Your task to perform on an android device: uninstall "ColorNote Notepad Notes" Image 0: 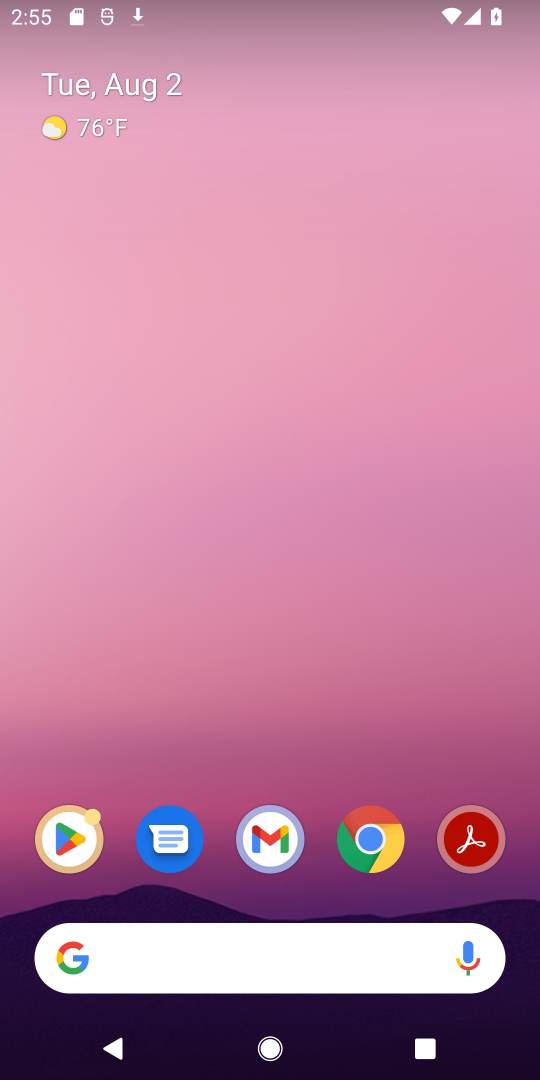
Step 0: drag from (222, 890) to (184, 124)
Your task to perform on an android device: uninstall "ColorNote Notepad Notes" Image 1: 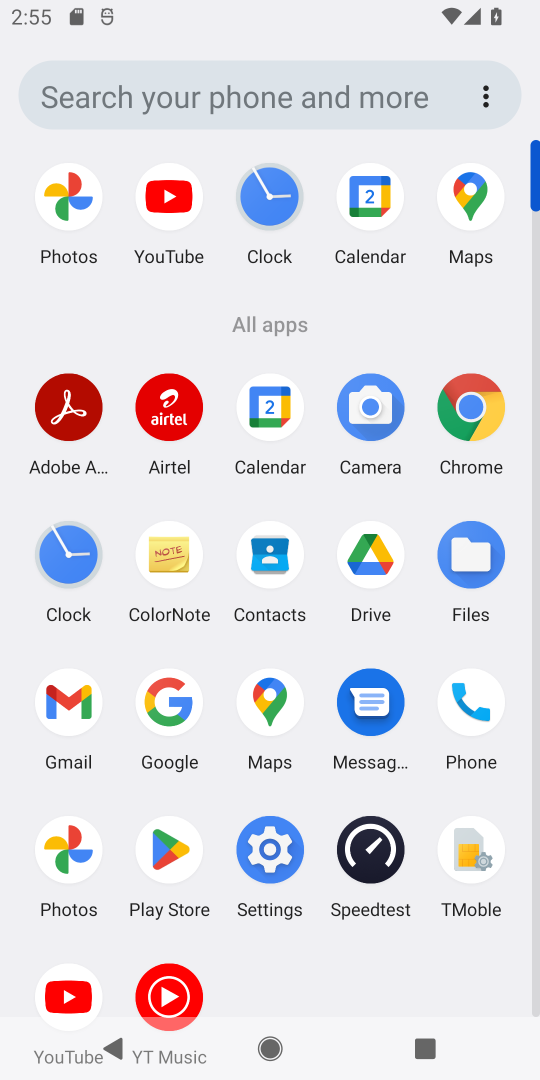
Step 1: click (187, 575)
Your task to perform on an android device: uninstall "ColorNote Notepad Notes" Image 2: 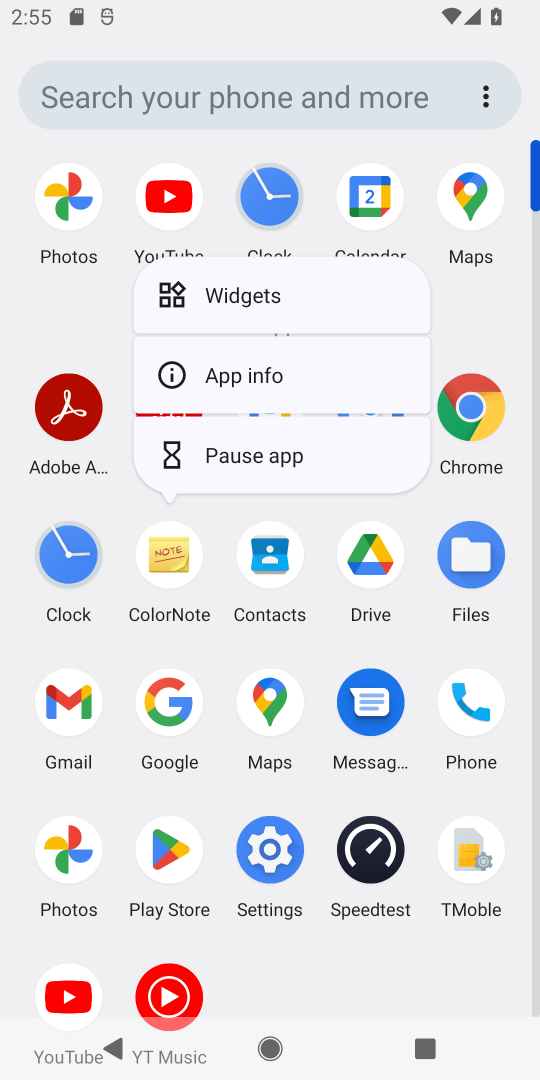
Step 2: click (193, 389)
Your task to perform on an android device: uninstall "ColorNote Notepad Notes" Image 3: 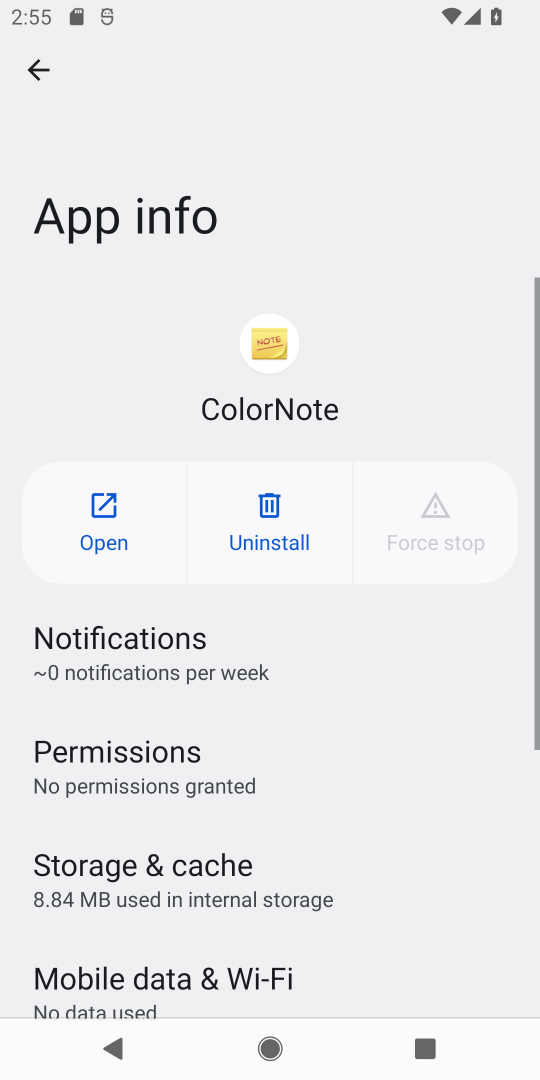
Step 3: click (288, 522)
Your task to perform on an android device: uninstall "ColorNote Notepad Notes" Image 4: 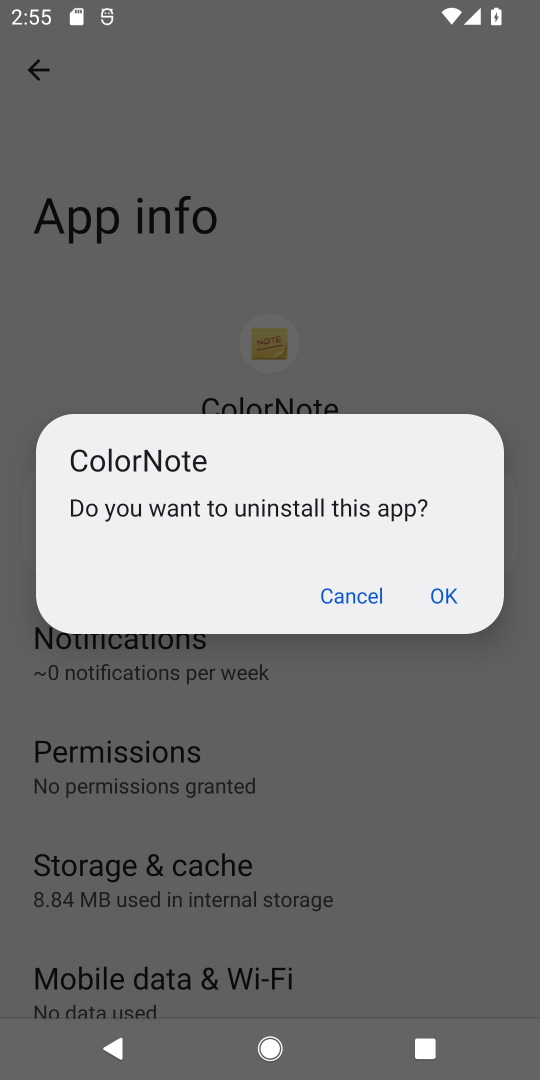
Step 4: click (447, 614)
Your task to perform on an android device: uninstall "ColorNote Notepad Notes" Image 5: 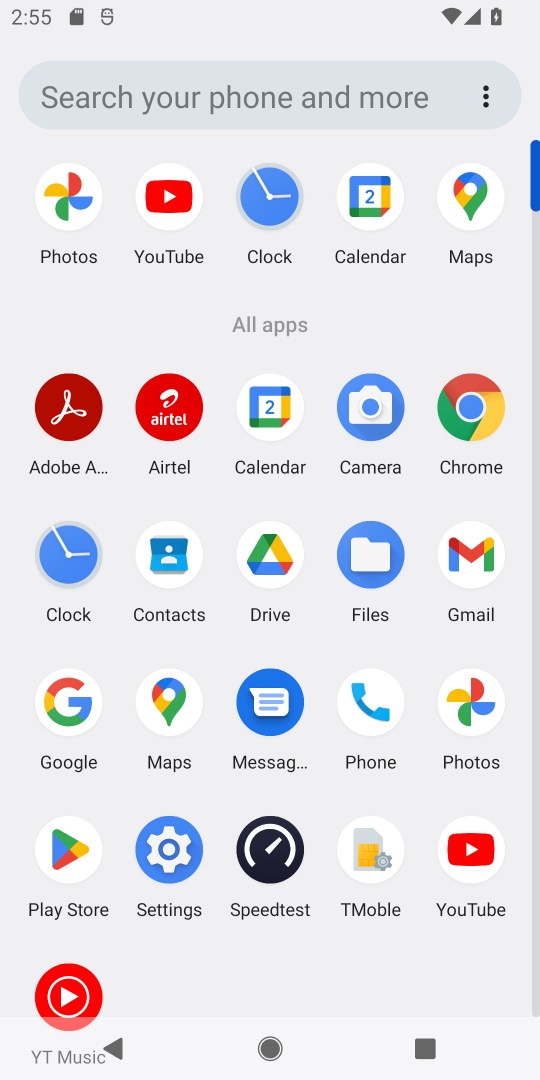
Step 5: task complete